Your task to perform on an android device: turn on airplane mode Image 0: 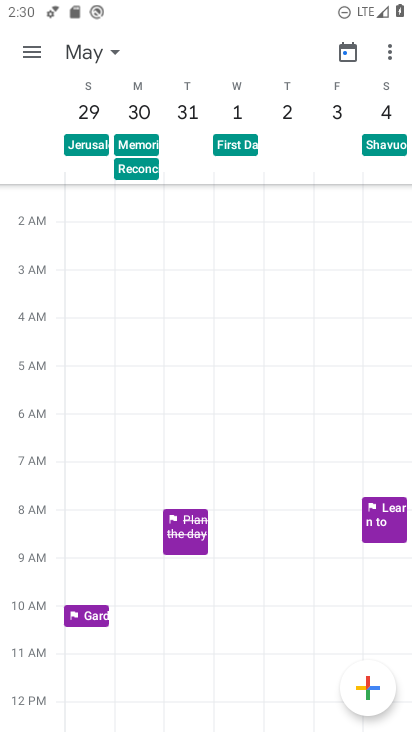
Step 0: press home button
Your task to perform on an android device: turn on airplane mode Image 1: 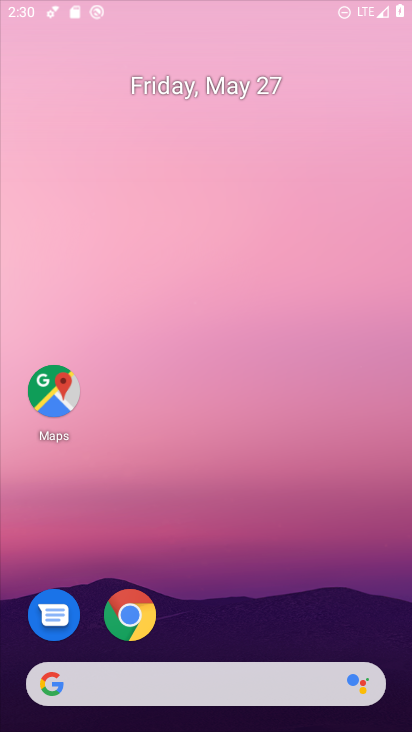
Step 1: drag from (266, 562) to (275, 157)
Your task to perform on an android device: turn on airplane mode Image 2: 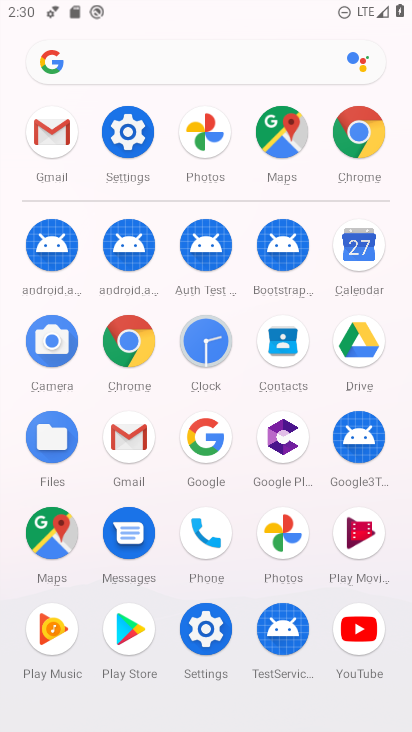
Step 2: click (204, 637)
Your task to perform on an android device: turn on airplane mode Image 3: 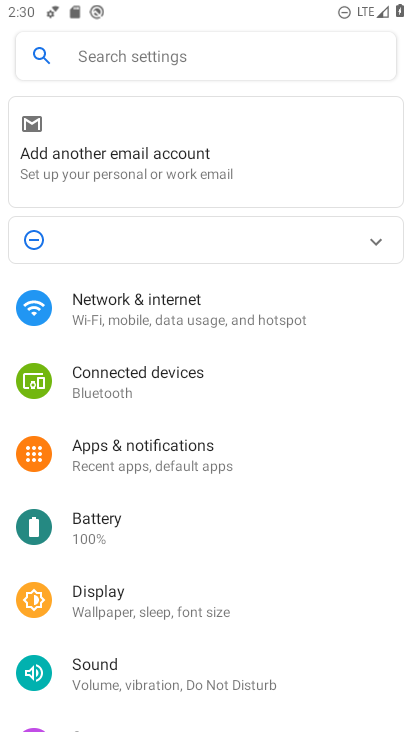
Step 3: click (144, 316)
Your task to perform on an android device: turn on airplane mode Image 4: 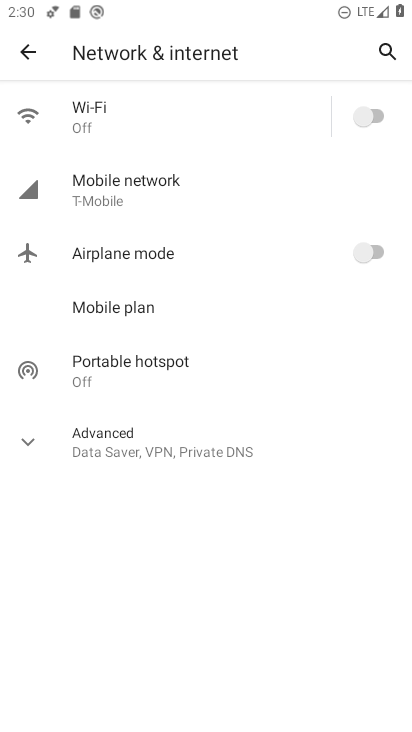
Step 4: click (141, 272)
Your task to perform on an android device: turn on airplane mode Image 5: 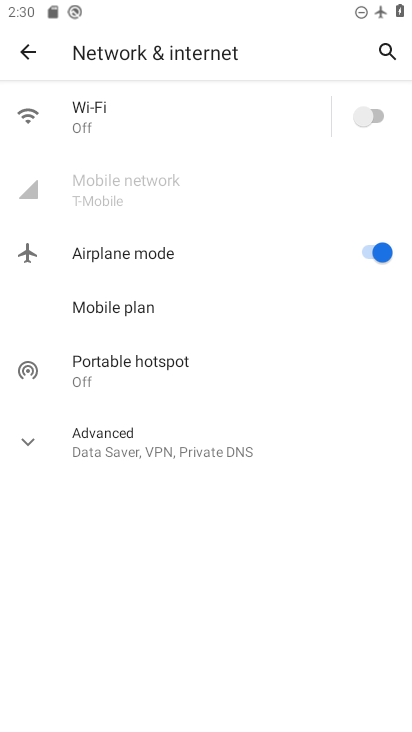
Step 5: task complete